Your task to perform on an android device: turn on showing notifications on the lock screen Image 0: 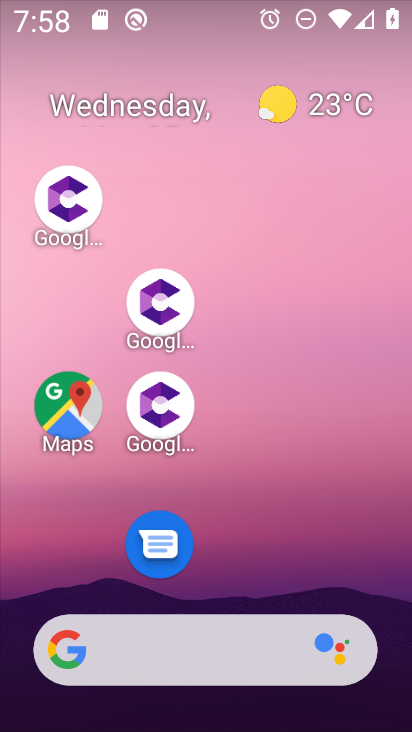
Step 0: drag from (305, 538) to (243, 3)
Your task to perform on an android device: turn on showing notifications on the lock screen Image 1: 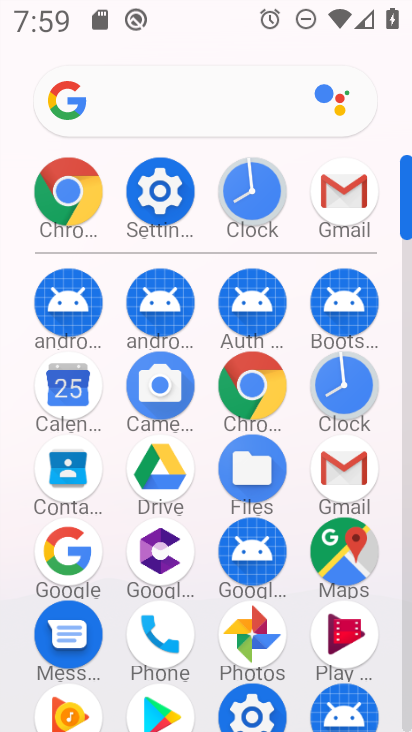
Step 1: click (164, 199)
Your task to perform on an android device: turn on showing notifications on the lock screen Image 2: 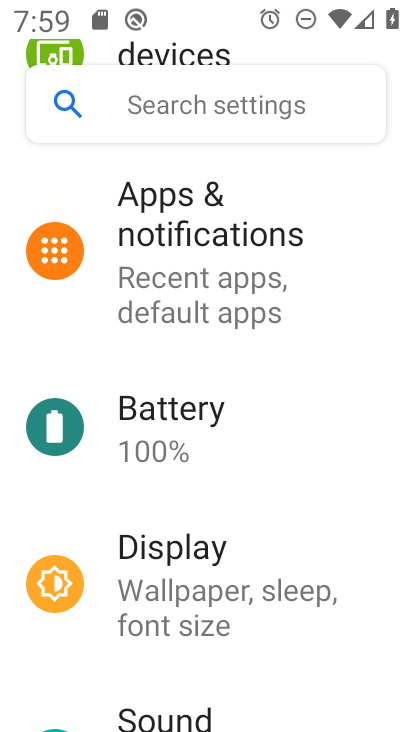
Step 2: click (182, 214)
Your task to perform on an android device: turn on showing notifications on the lock screen Image 3: 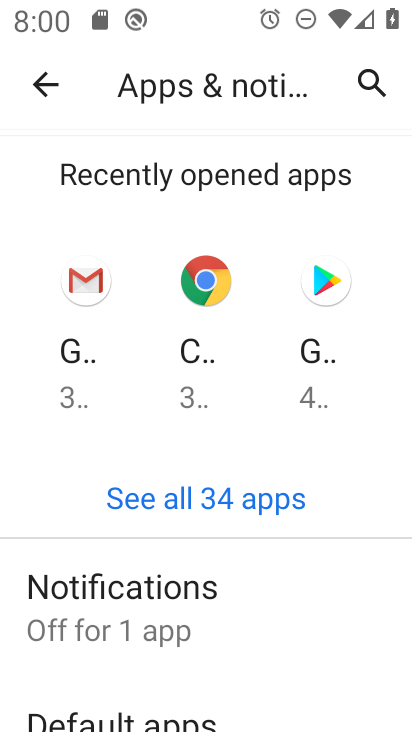
Step 3: drag from (302, 593) to (277, 207)
Your task to perform on an android device: turn on showing notifications on the lock screen Image 4: 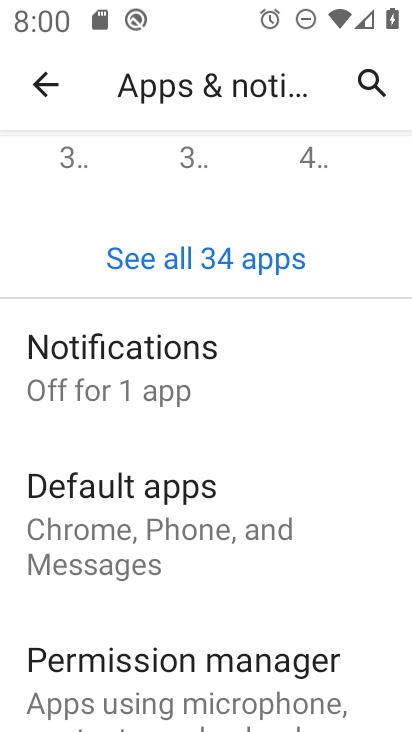
Step 4: drag from (272, 583) to (210, 241)
Your task to perform on an android device: turn on showing notifications on the lock screen Image 5: 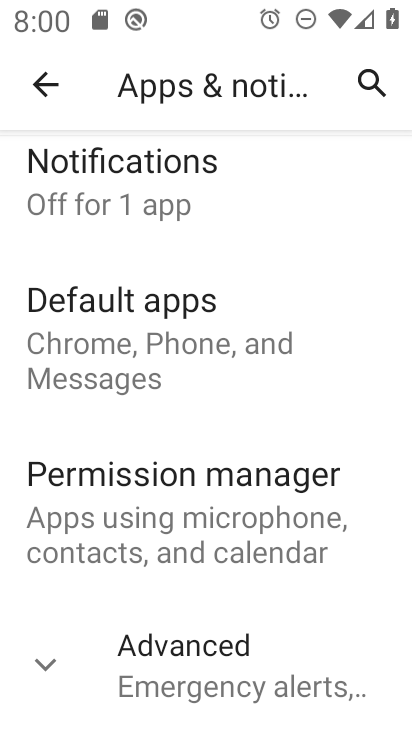
Step 5: drag from (274, 249) to (334, 725)
Your task to perform on an android device: turn on showing notifications on the lock screen Image 6: 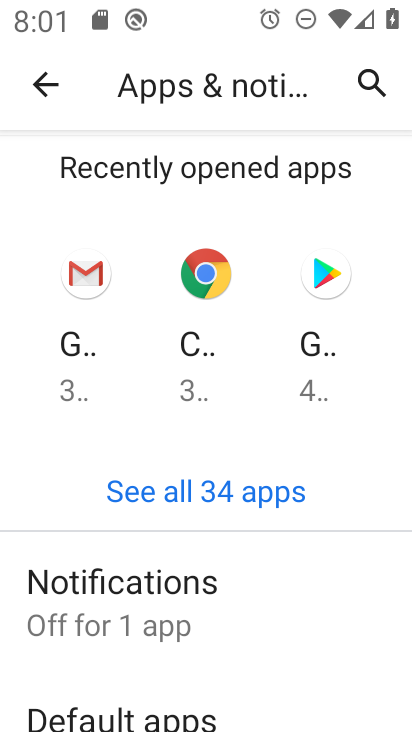
Step 6: click (159, 590)
Your task to perform on an android device: turn on showing notifications on the lock screen Image 7: 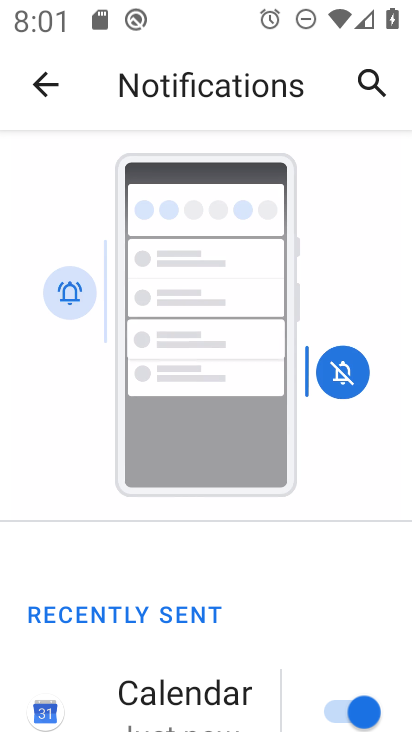
Step 7: drag from (292, 580) to (262, 184)
Your task to perform on an android device: turn on showing notifications on the lock screen Image 8: 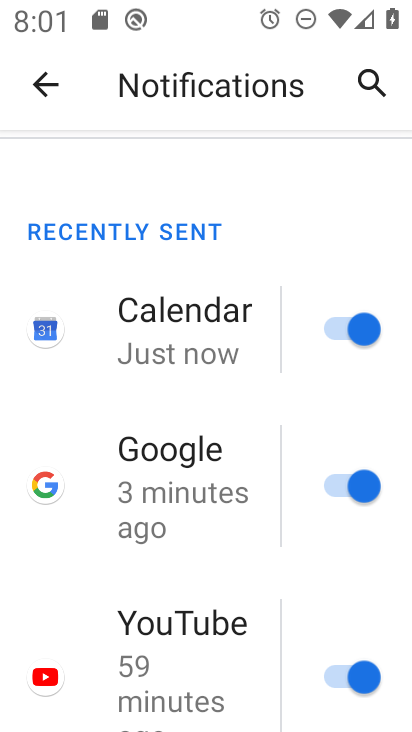
Step 8: drag from (204, 552) to (171, 238)
Your task to perform on an android device: turn on showing notifications on the lock screen Image 9: 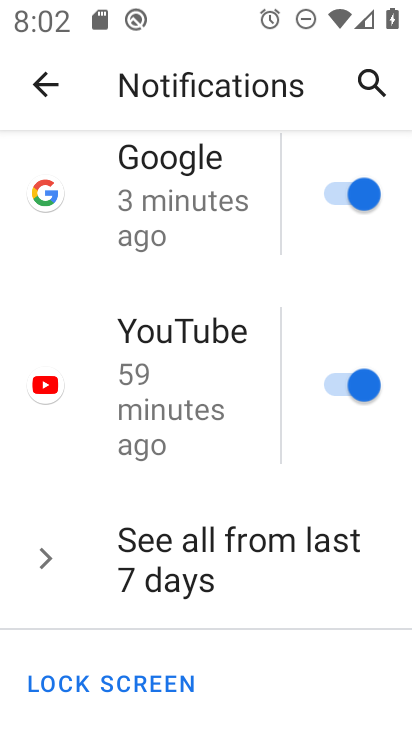
Step 9: drag from (227, 487) to (189, 286)
Your task to perform on an android device: turn on showing notifications on the lock screen Image 10: 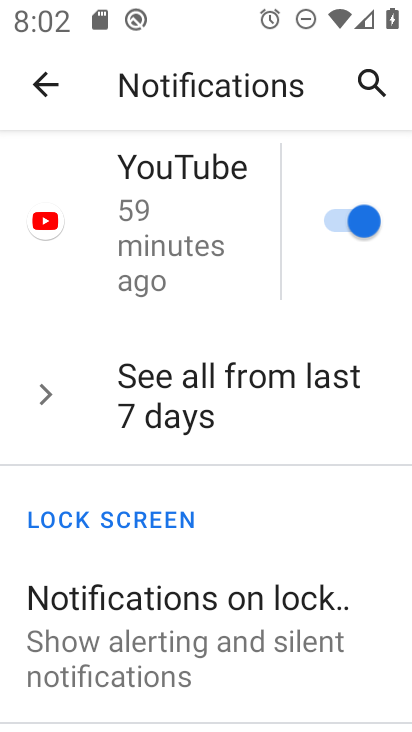
Step 10: click (210, 598)
Your task to perform on an android device: turn on showing notifications on the lock screen Image 11: 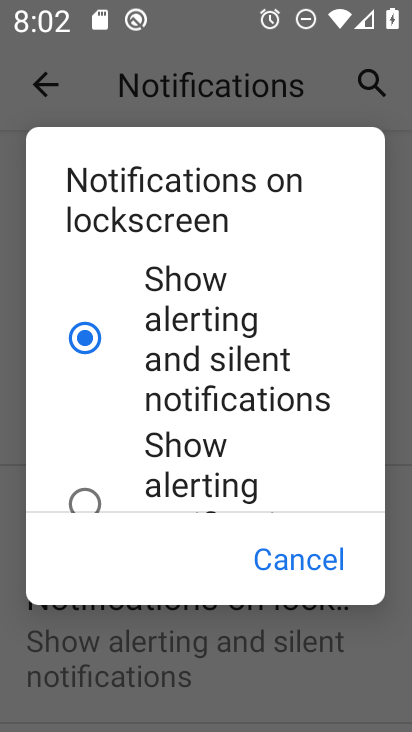
Step 11: task complete